Your task to perform on an android device: What's the weather going to be this weekend? Image 0: 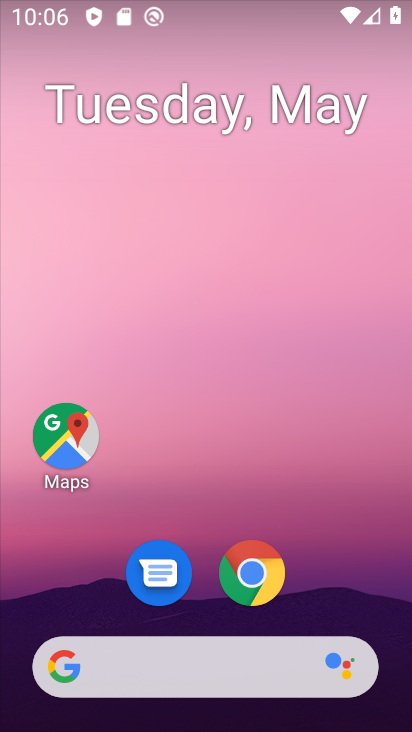
Step 0: click (244, 568)
Your task to perform on an android device: What's the weather going to be this weekend? Image 1: 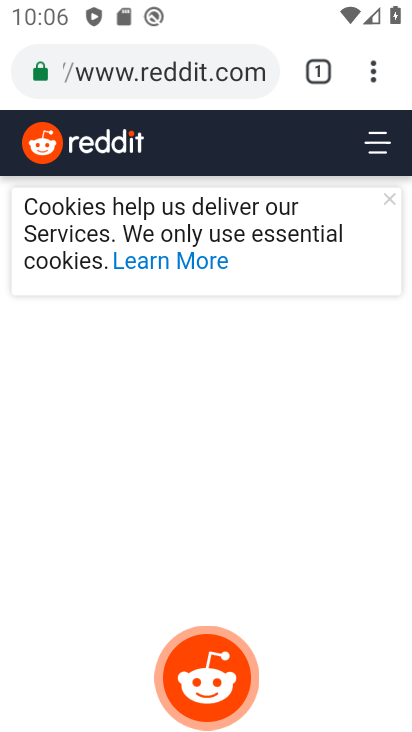
Step 1: click (142, 67)
Your task to perform on an android device: What's the weather going to be this weekend? Image 2: 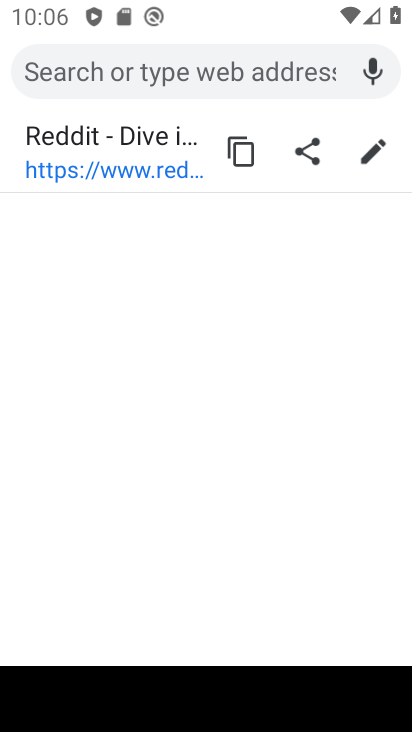
Step 2: type "What's the weather going to be this weekend?"
Your task to perform on an android device: What's the weather going to be this weekend? Image 3: 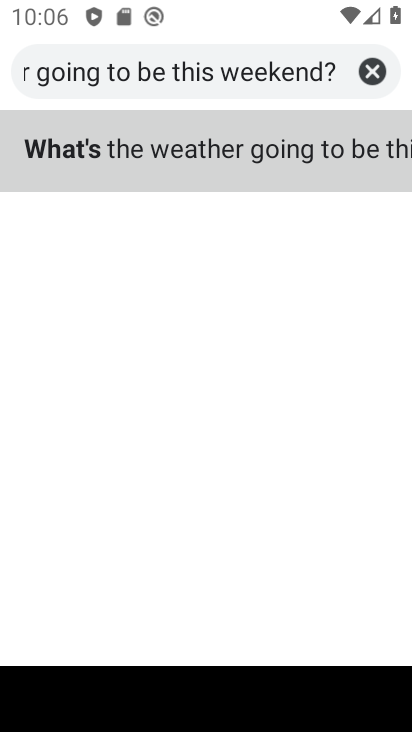
Step 3: click (164, 147)
Your task to perform on an android device: What's the weather going to be this weekend? Image 4: 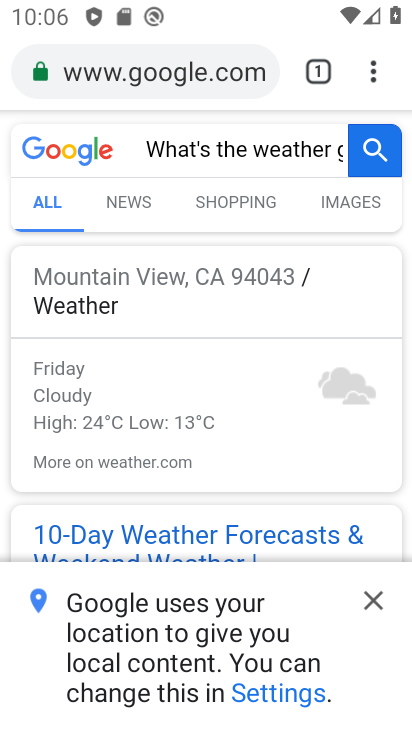
Step 4: click (375, 595)
Your task to perform on an android device: What's the weather going to be this weekend? Image 5: 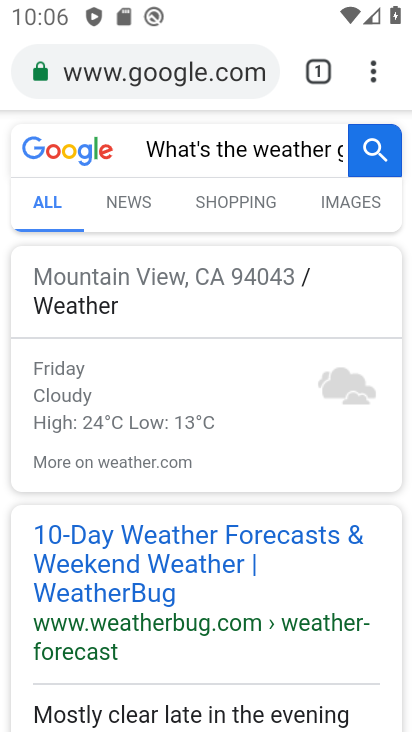
Step 5: task complete